Your task to perform on an android device: toggle notifications settings in the gmail app Image 0: 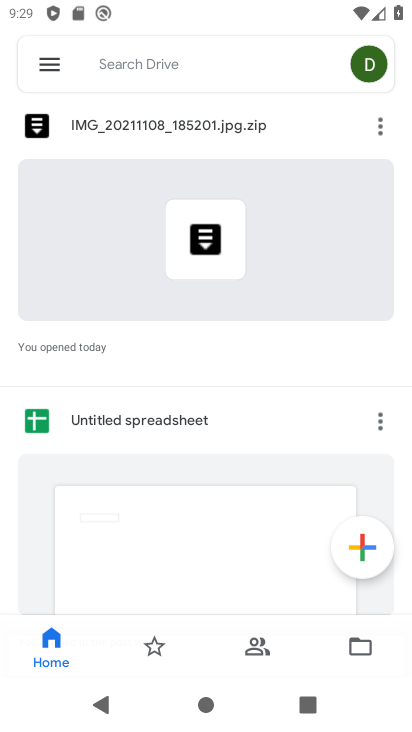
Step 0: press home button
Your task to perform on an android device: toggle notifications settings in the gmail app Image 1: 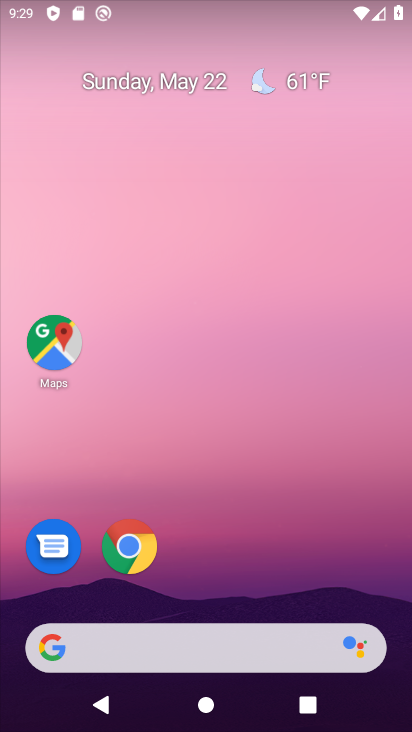
Step 1: drag from (165, 629) to (180, 82)
Your task to perform on an android device: toggle notifications settings in the gmail app Image 2: 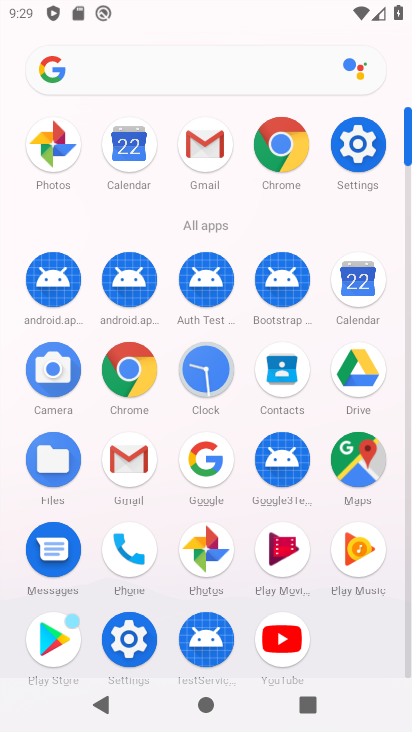
Step 2: click (188, 155)
Your task to perform on an android device: toggle notifications settings in the gmail app Image 3: 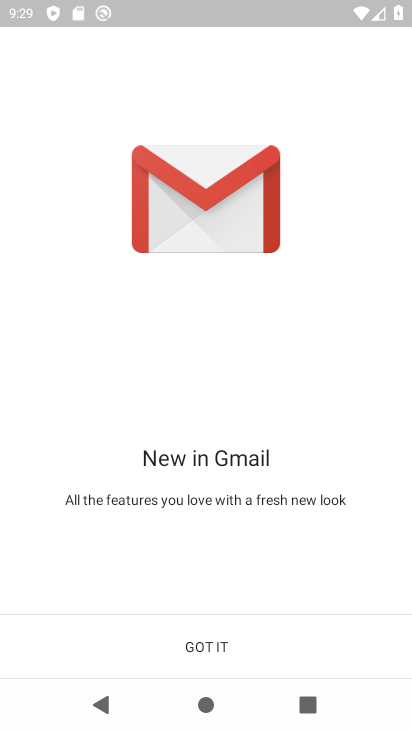
Step 3: click (214, 639)
Your task to perform on an android device: toggle notifications settings in the gmail app Image 4: 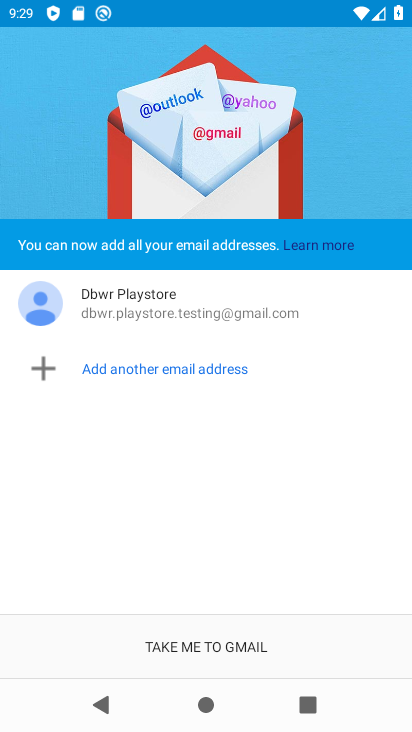
Step 4: click (246, 662)
Your task to perform on an android device: toggle notifications settings in the gmail app Image 5: 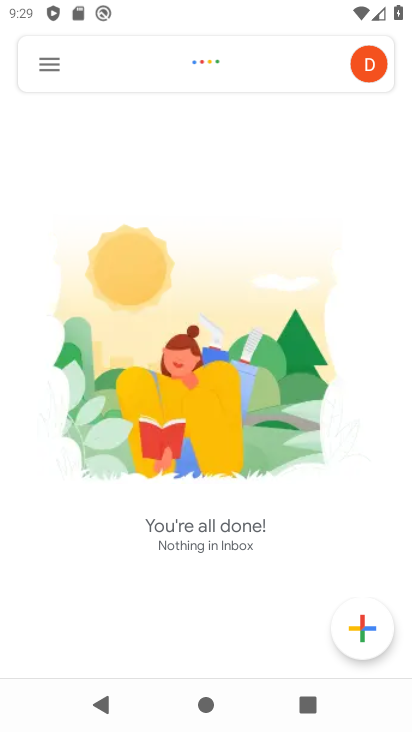
Step 5: click (44, 66)
Your task to perform on an android device: toggle notifications settings in the gmail app Image 6: 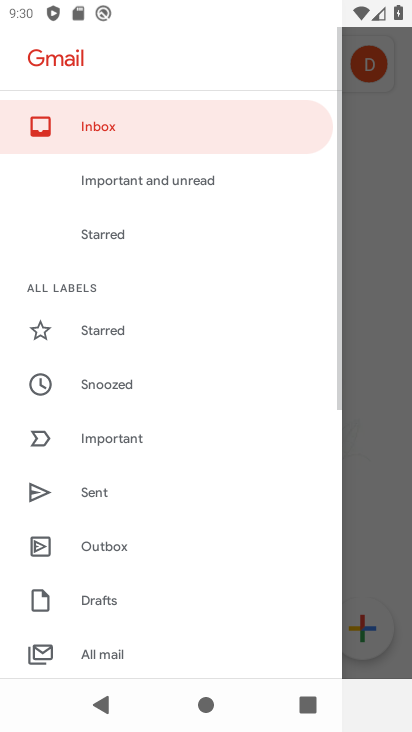
Step 6: drag from (128, 605) to (107, 178)
Your task to perform on an android device: toggle notifications settings in the gmail app Image 7: 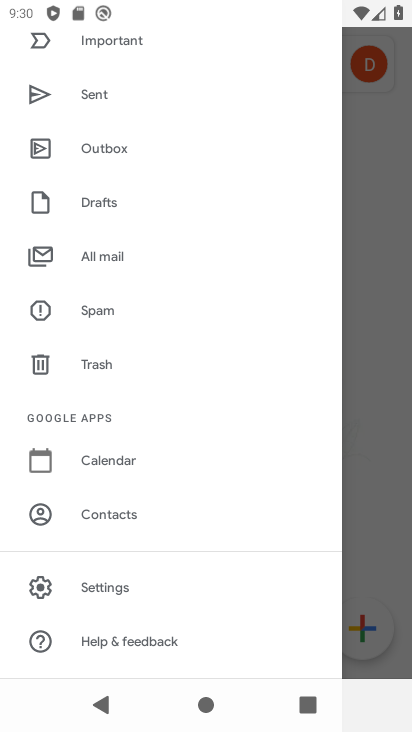
Step 7: click (109, 587)
Your task to perform on an android device: toggle notifications settings in the gmail app Image 8: 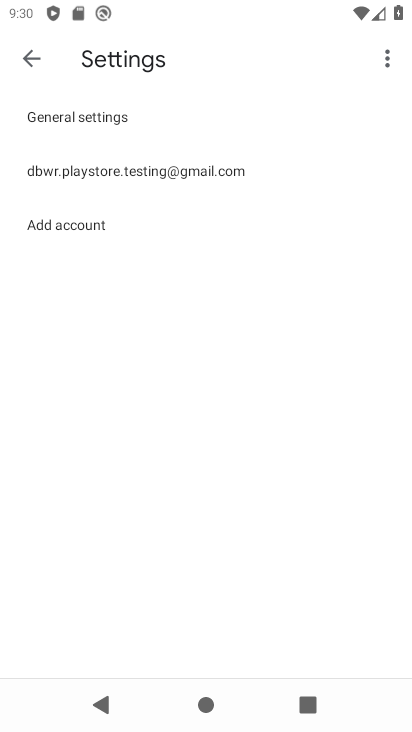
Step 8: click (132, 173)
Your task to perform on an android device: toggle notifications settings in the gmail app Image 9: 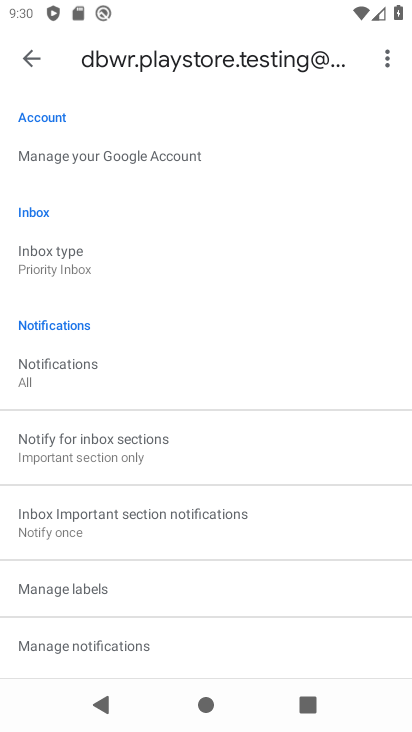
Step 9: drag from (121, 627) to (72, 382)
Your task to perform on an android device: toggle notifications settings in the gmail app Image 10: 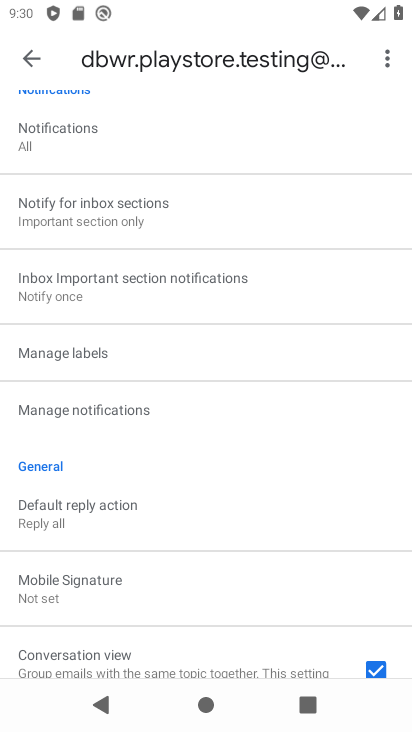
Step 10: click (91, 402)
Your task to perform on an android device: toggle notifications settings in the gmail app Image 11: 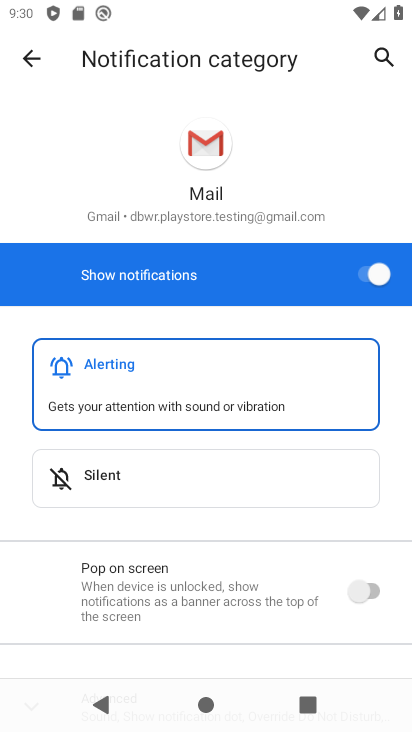
Step 11: click (364, 273)
Your task to perform on an android device: toggle notifications settings in the gmail app Image 12: 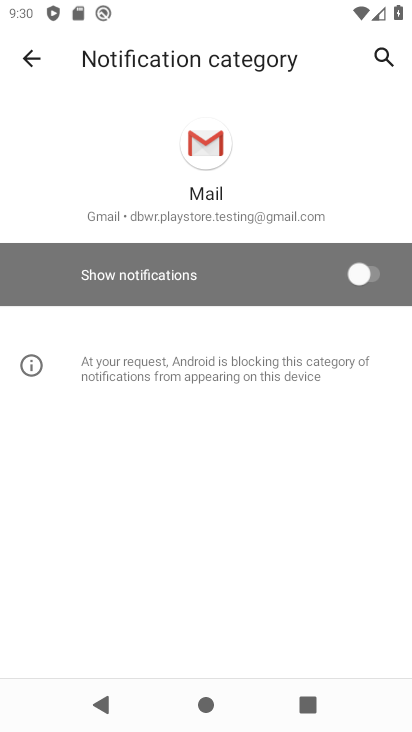
Step 12: task complete